Your task to perform on an android device: Open Reddit.com Image 0: 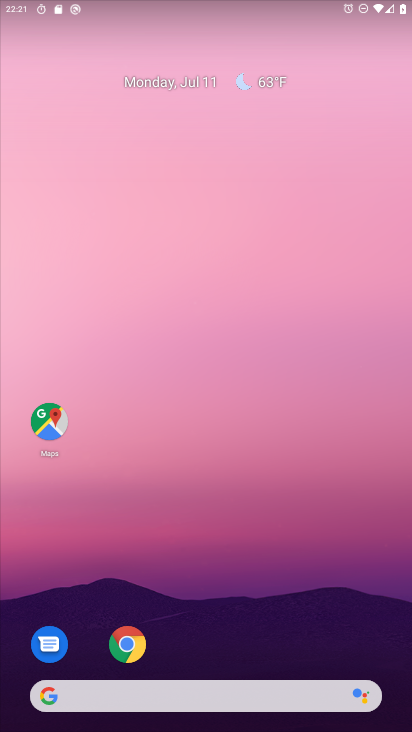
Step 0: drag from (285, 555) to (273, 95)
Your task to perform on an android device: Open Reddit.com Image 1: 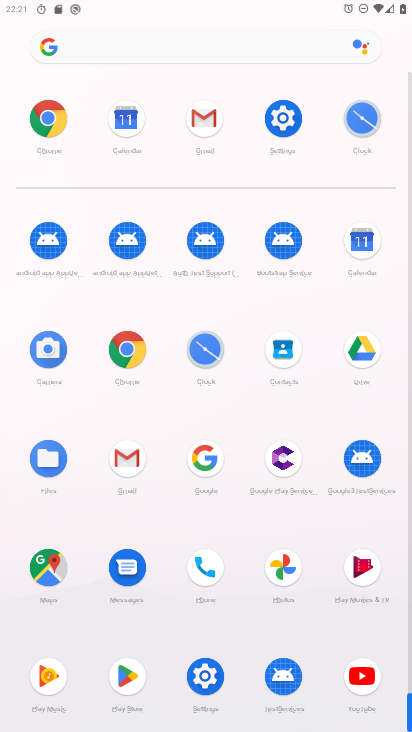
Step 1: click (46, 116)
Your task to perform on an android device: Open Reddit.com Image 2: 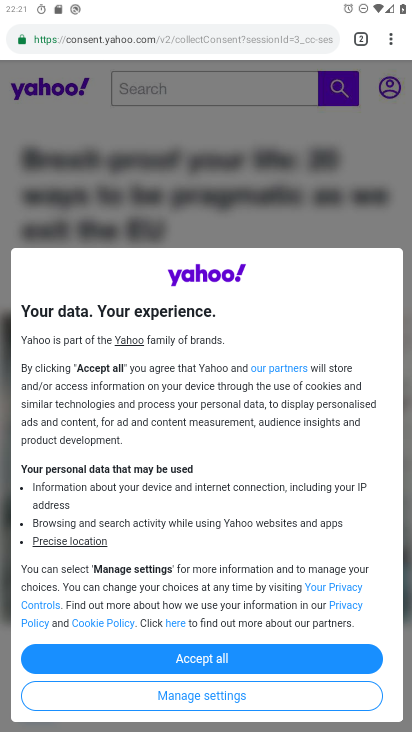
Step 2: click (254, 33)
Your task to perform on an android device: Open Reddit.com Image 3: 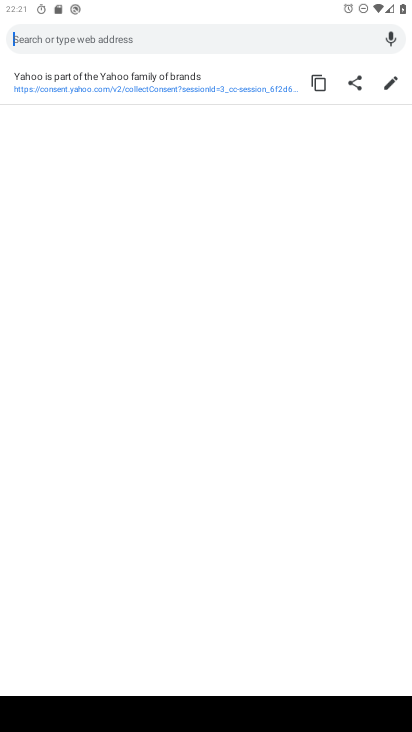
Step 3: type "reddit.com"
Your task to perform on an android device: Open Reddit.com Image 4: 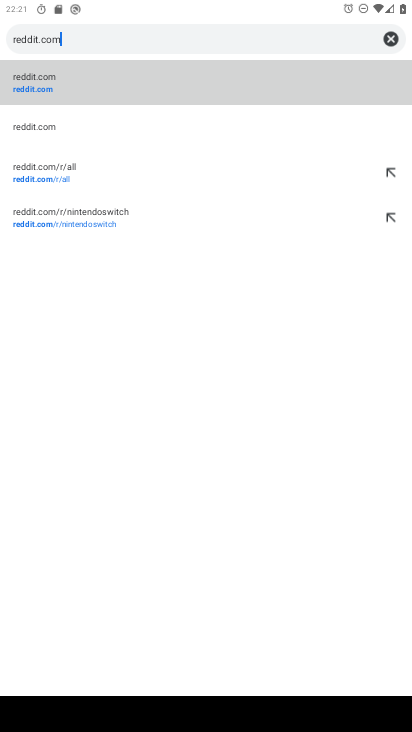
Step 4: click (44, 86)
Your task to perform on an android device: Open Reddit.com Image 5: 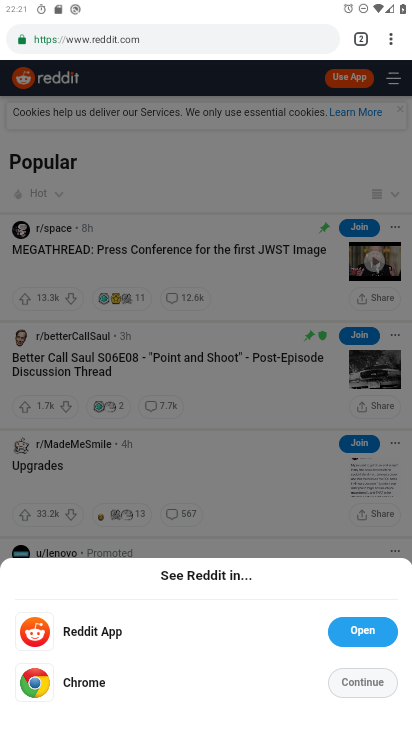
Step 5: task complete